Your task to perform on an android device: empty trash in google photos Image 0: 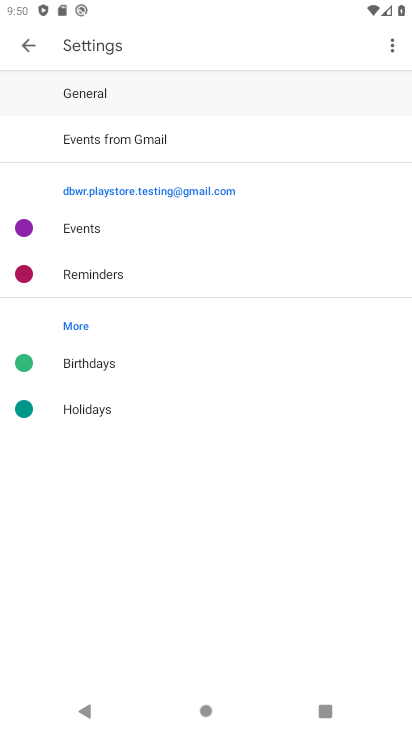
Step 0: press home button
Your task to perform on an android device: empty trash in google photos Image 1: 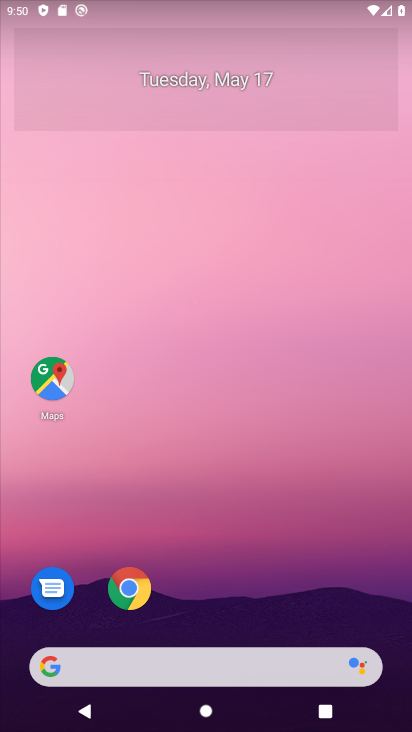
Step 1: drag from (230, 724) to (234, 147)
Your task to perform on an android device: empty trash in google photos Image 2: 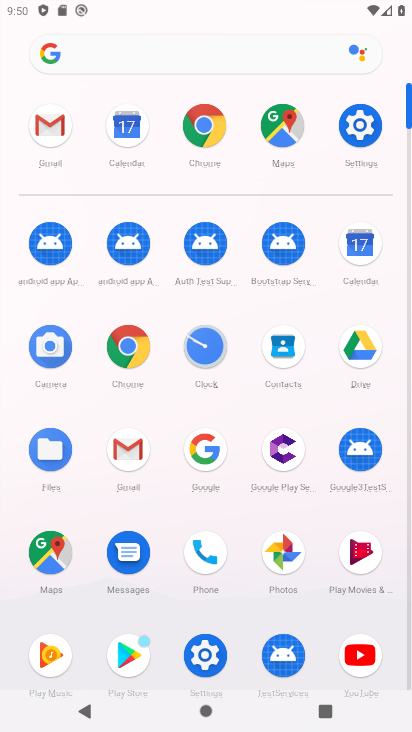
Step 2: click (282, 547)
Your task to perform on an android device: empty trash in google photos Image 3: 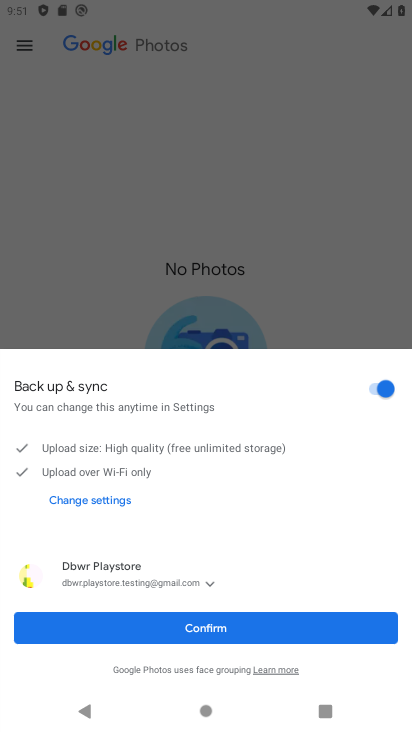
Step 3: click (211, 626)
Your task to perform on an android device: empty trash in google photos Image 4: 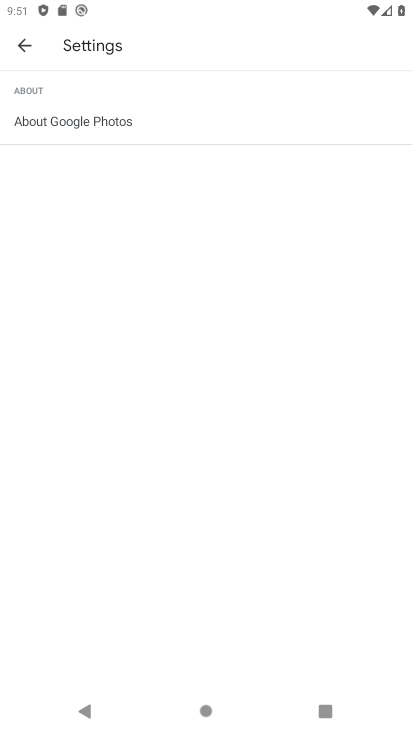
Step 4: click (26, 44)
Your task to perform on an android device: empty trash in google photos Image 5: 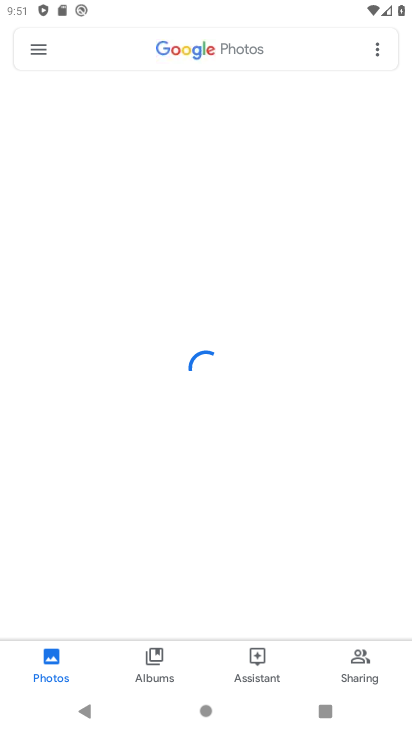
Step 5: click (36, 53)
Your task to perform on an android device: empty trash in google photos Image 6: 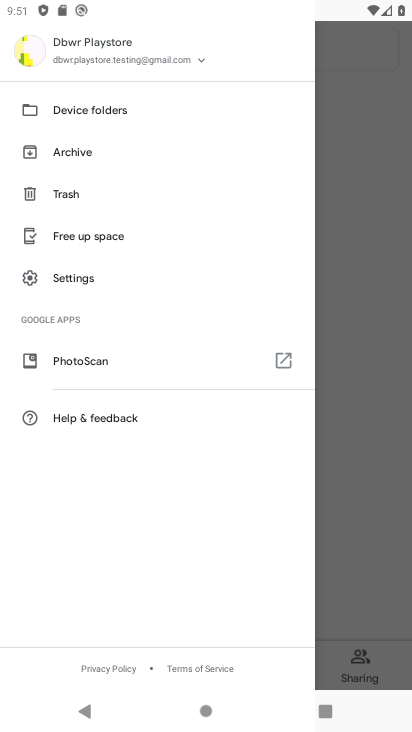
Step 6: click (75, 189)
Your task to perform on an android device: empty trash in google photos Image 7: 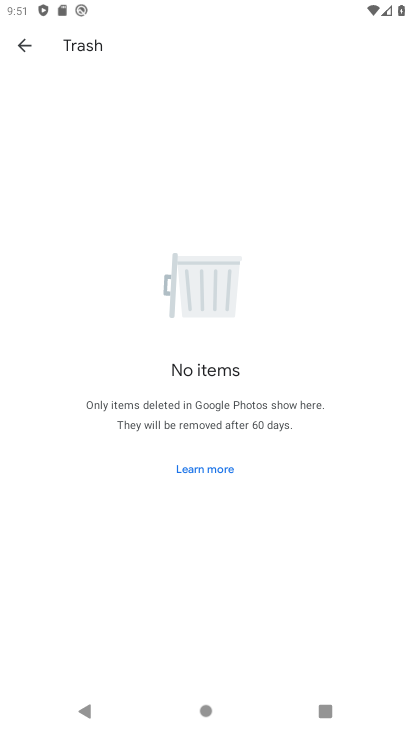
Step 7: task complete